Your task to perform on an android device: Open Chrome and go to settings Image 0: 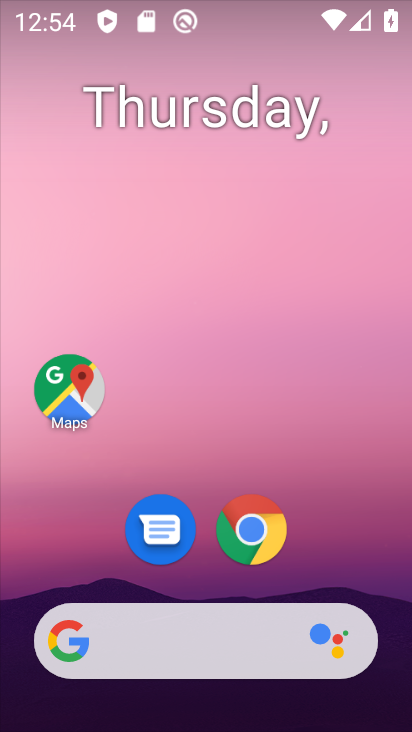
Step 0: click (249, 533)
Your task to perform on an android device: Open Chrome and go to settings Image 1: 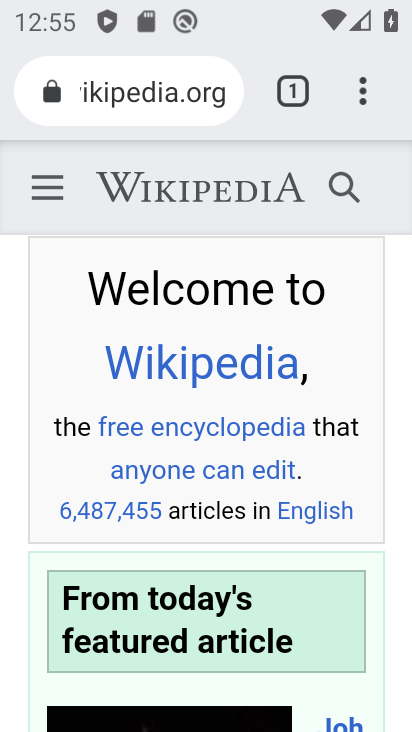
Step 1: task complete